Your task to perform on an android device: see tabs open on other devices in the chrome app Image 0: 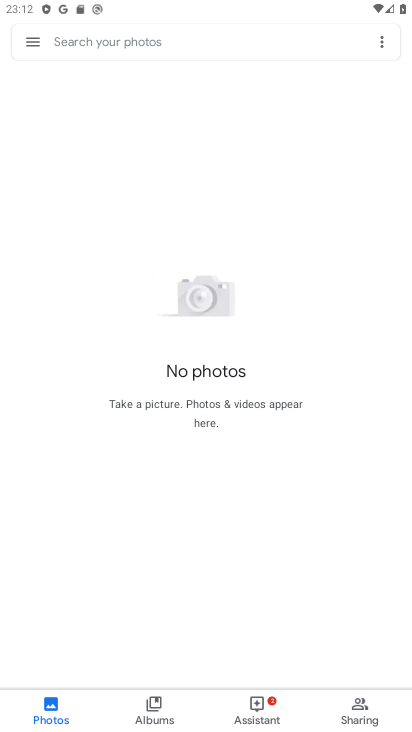
Step 0: press home button
Your task to perform on an android device: see tabs open on other devices in the chrome app Image 1: 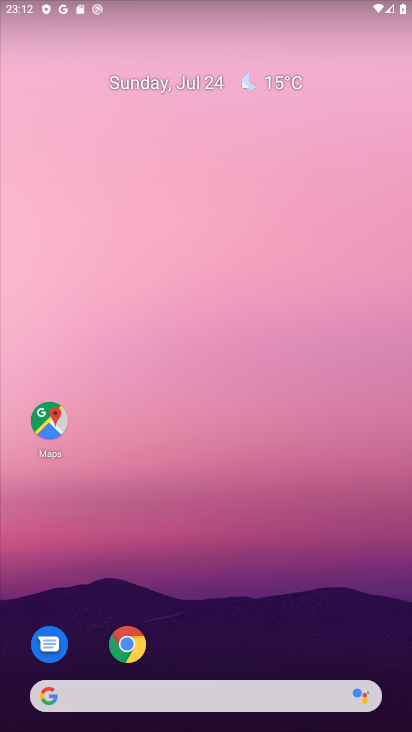
Step 1: drag from (207, 727) to (207, 112)
Your task to perform on an android device: see tabs open on other devices in the chrome app Image 2: 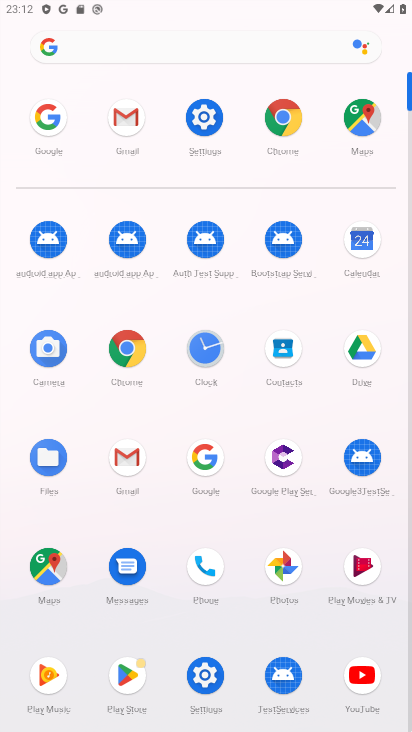
Step 2: click (122, 344)
Your task to perform on an android device: see tabs open on other devices in the chrome app Image 3: 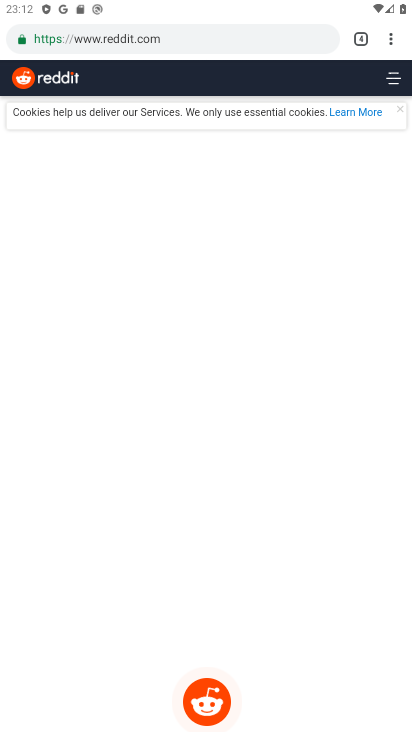
Step 3: click (390, 42)
Your task to perform on an android device: see tabs open on other devices in the chrome app Image 4: 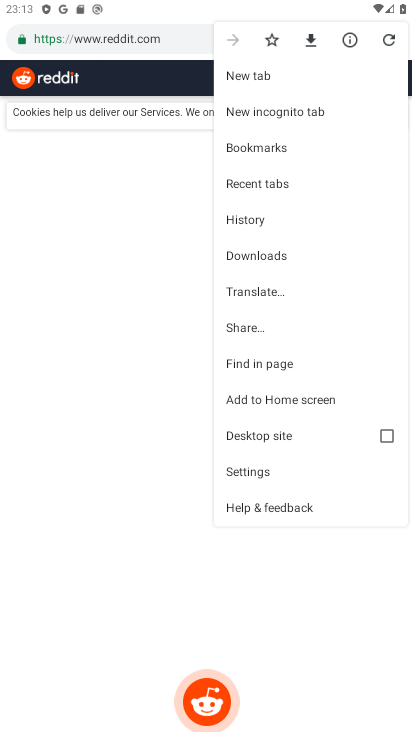
Step 4: click (243, 183)
Your task to perform on an android device: see tabs open on other devices in the chrome app Image 5: 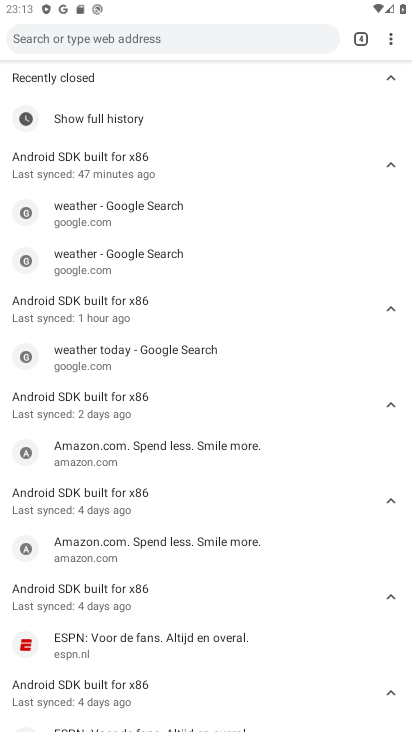
Step 5: task complete